Your task to perform on an android device: Go to Yahoo.com Image 0: 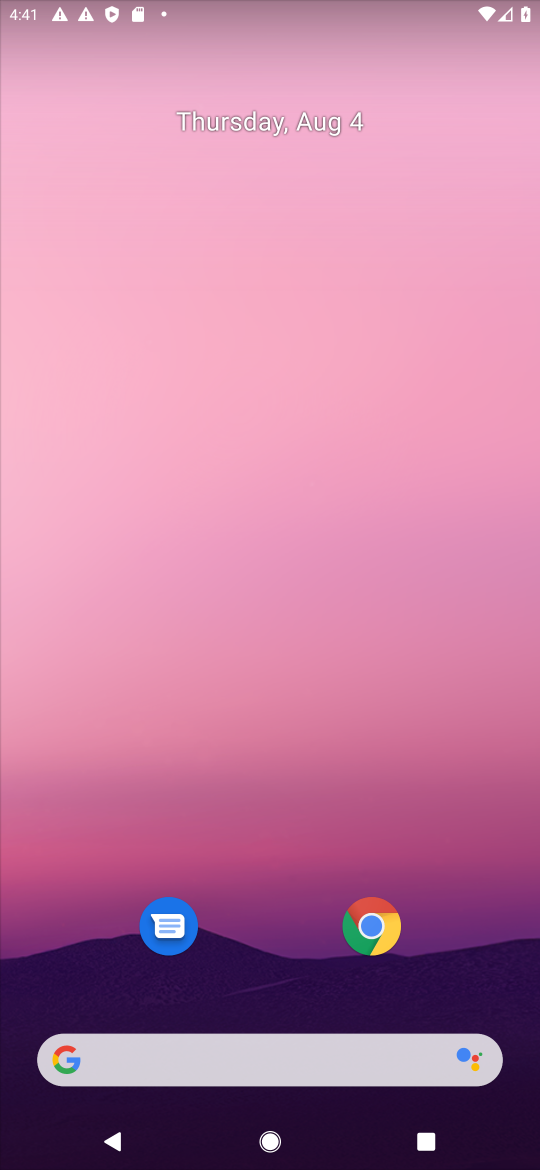
Step 0: press home button
Your task to perform on an android device: Go to Yahoo.com Image 1: 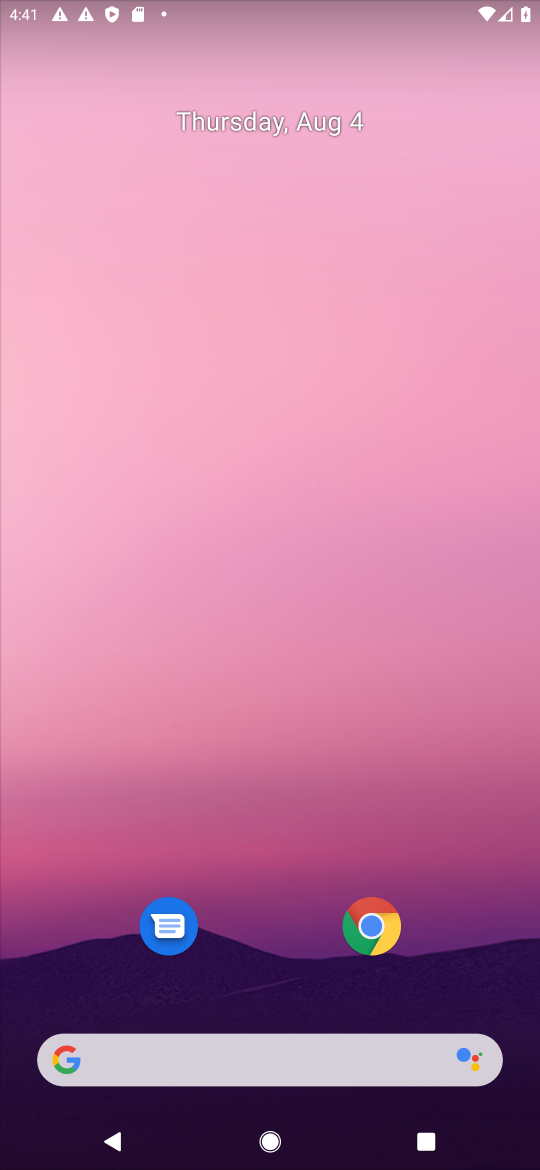
Step 1: click (57, 1068)
Your task to perform on an android device: Go to Yahoo.com Image 2: 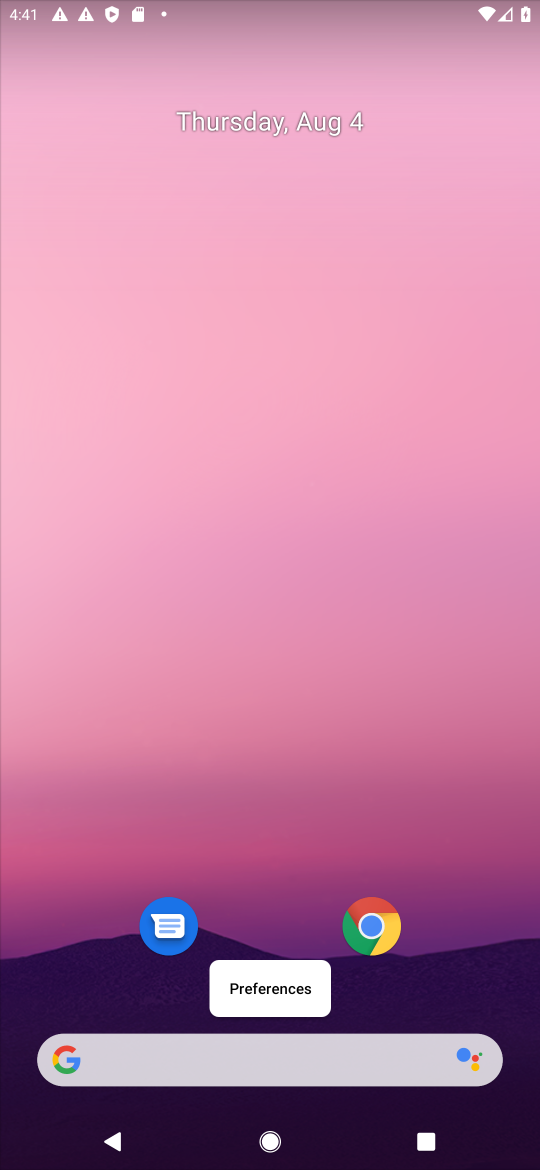
Step 2: click (63, 1047)
Your task to perform on an android device: Go to Yahoo.com Image 3: 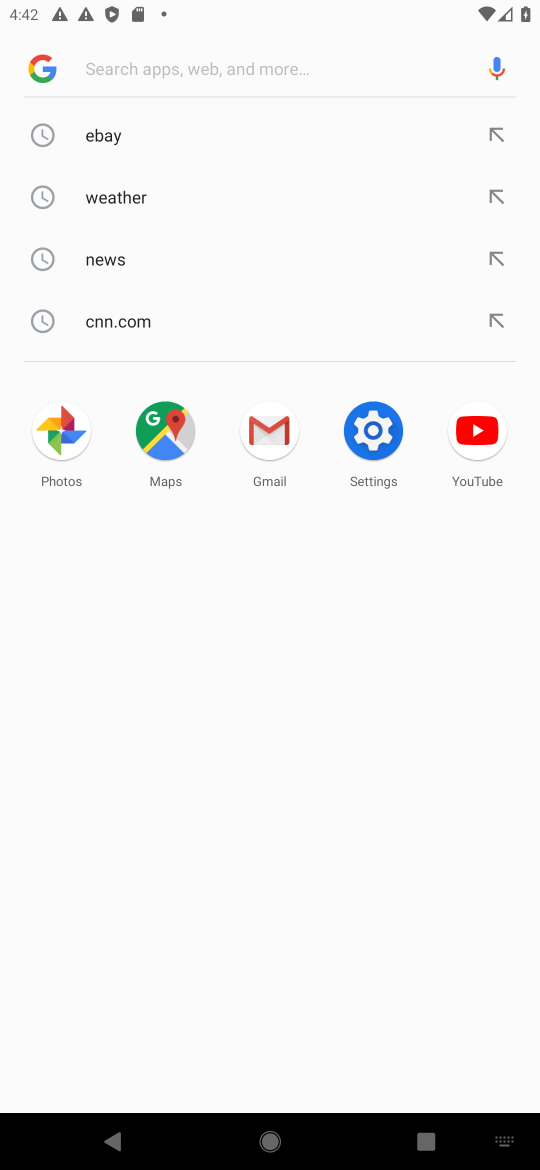
Step 3: type "Yahoo.com"
Your task to perform on an android device: Go to Yahoo.com Image 4: 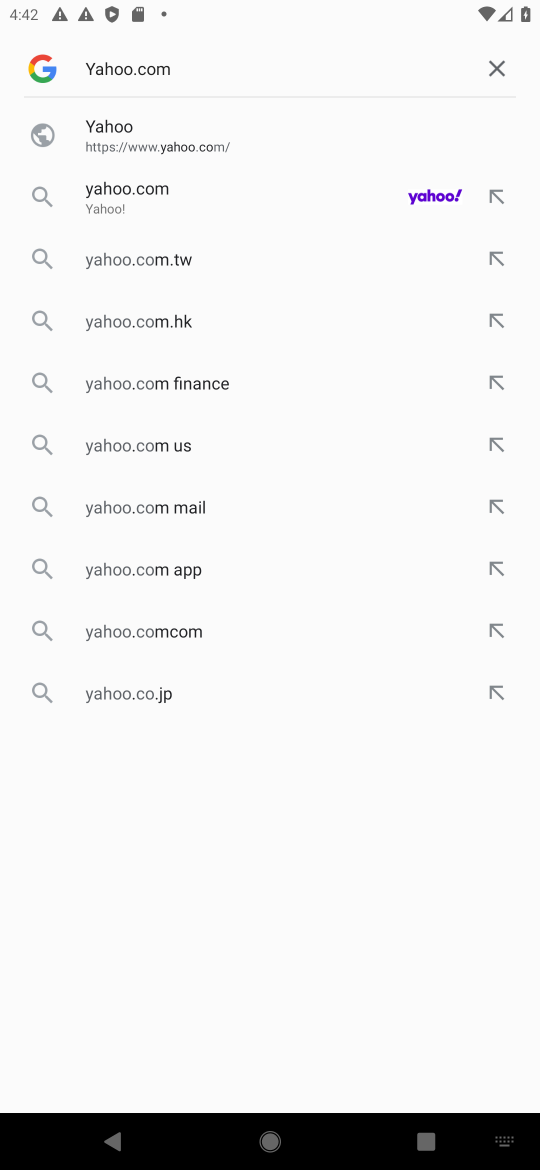
Step 4: press enter
Your task to perform on an android device: Go to Yahoo.com Image 5: 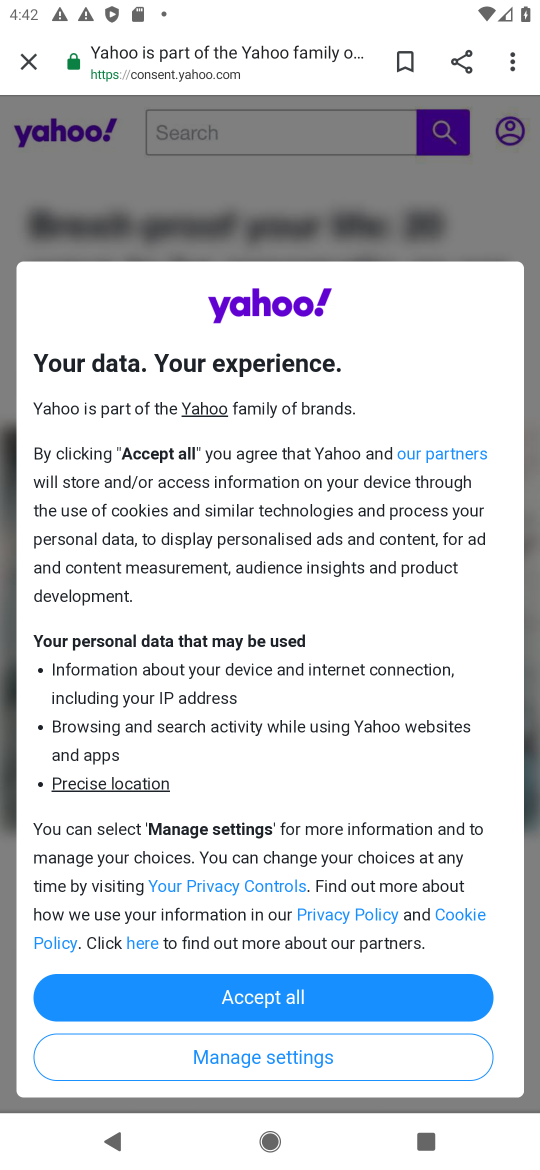
Step 5: click (350, 1000)
Your task to perform on an android device: Go to Yahoo.com Image 6: 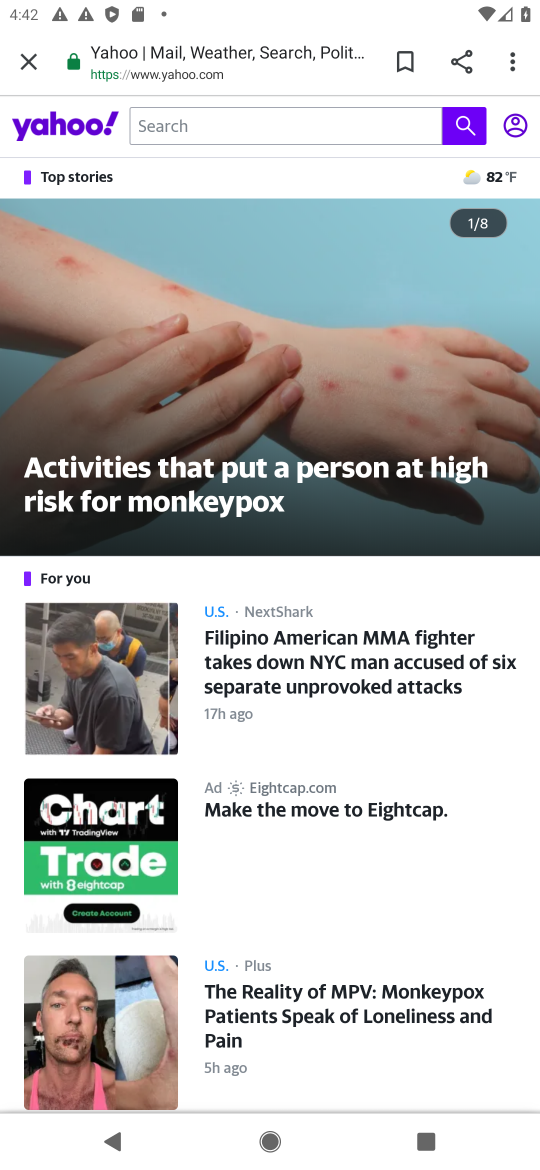
Step 6: task complete